Your task to perform on an android device: Search for pizza restaurants on Maps Image 0: 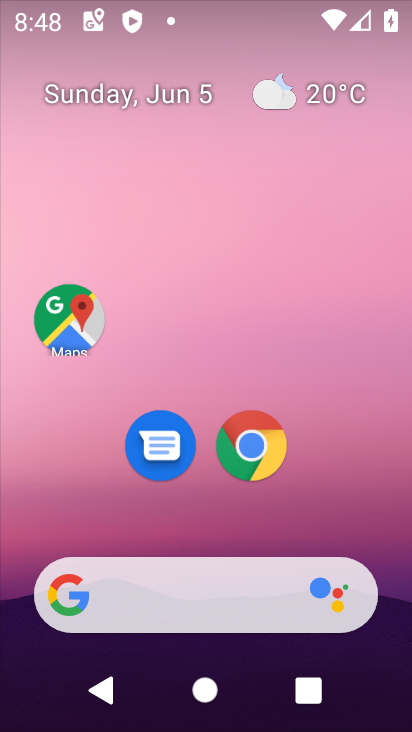
Step 0: drag from (279, 599) to (265, 29)
Your task to perform on an android device: Search for pizza restaurants on Maps Image 1: 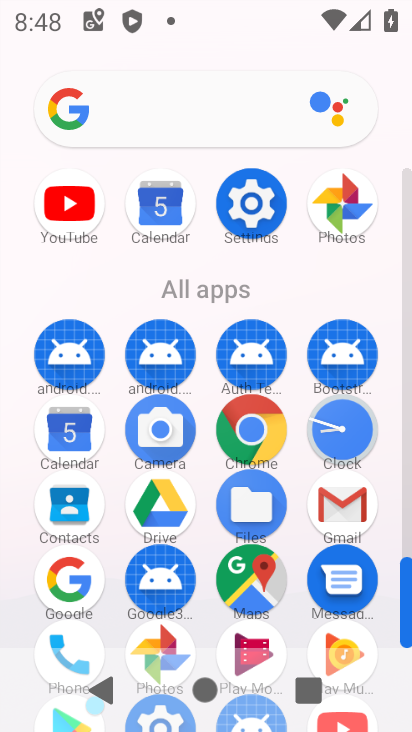
Step 1: click (264, 573)
Your task to perform on an android device: Search for pizza restaurants on Maps Image 2: 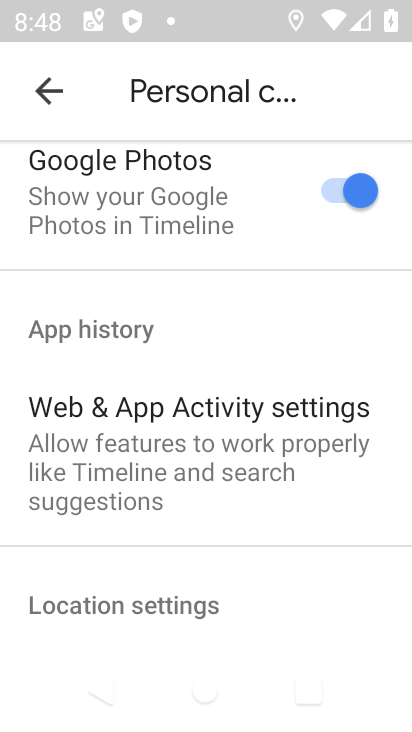
Step 2: press back button
Your task to perform on an android device: Search for pizza restaurants on Maps Image 3: 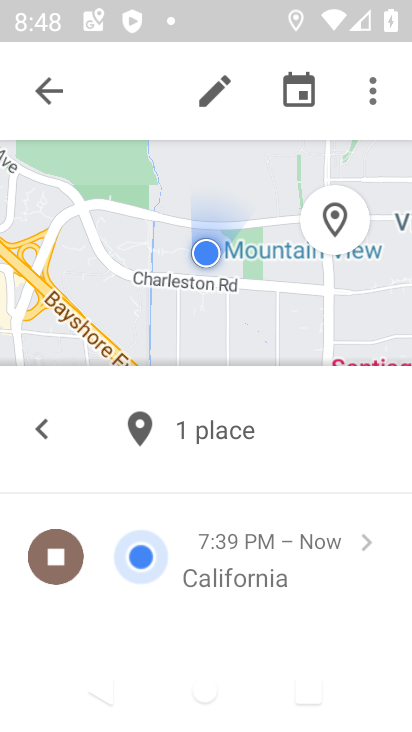
Step 3: press back button
Your task to perform on an android device: Search for pizza restaurants on Maps Image 4: 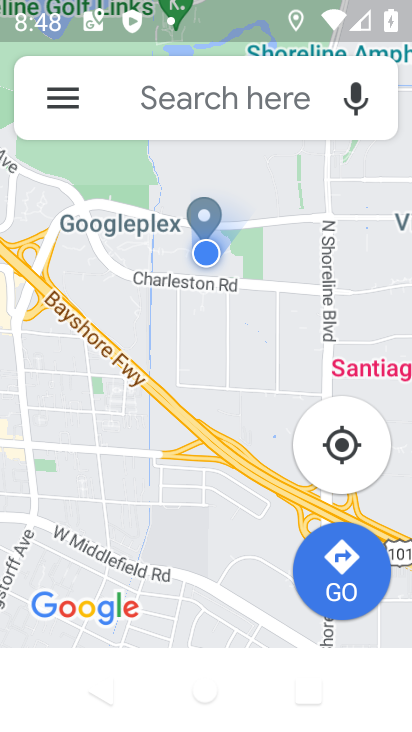
Step 4: click (256, 109)
Your task to perform on an android device: Search for pizza restaurants on Maps Image 5: 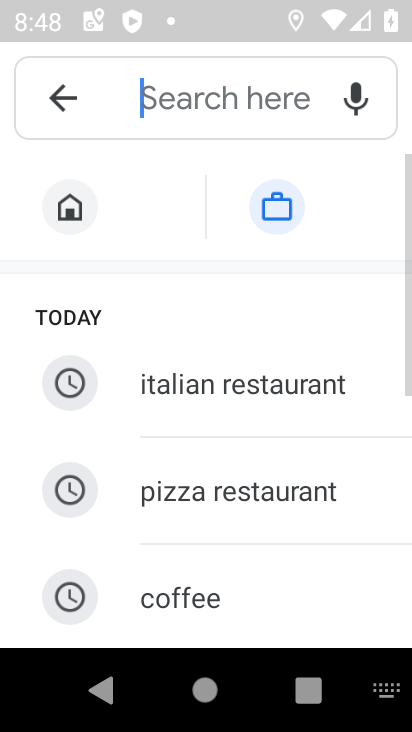
Step 5: click (265, 505)
Your task to perform on an android device: Search for pizza restaurants on Maps Image 6: 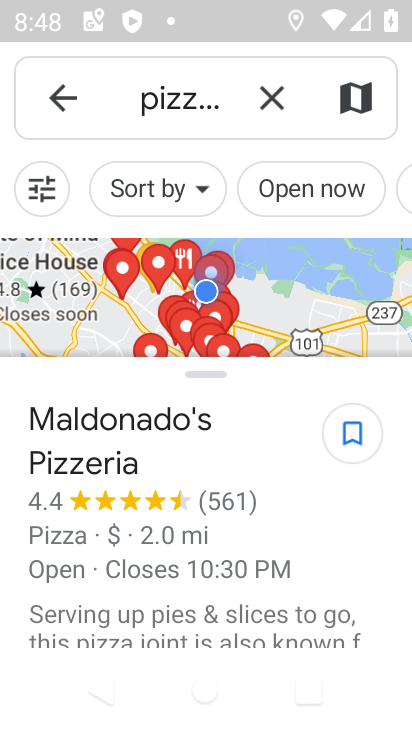
Step 6: task complete